Your task to perform on an android device: Open Maps and search for coffee Image 0: 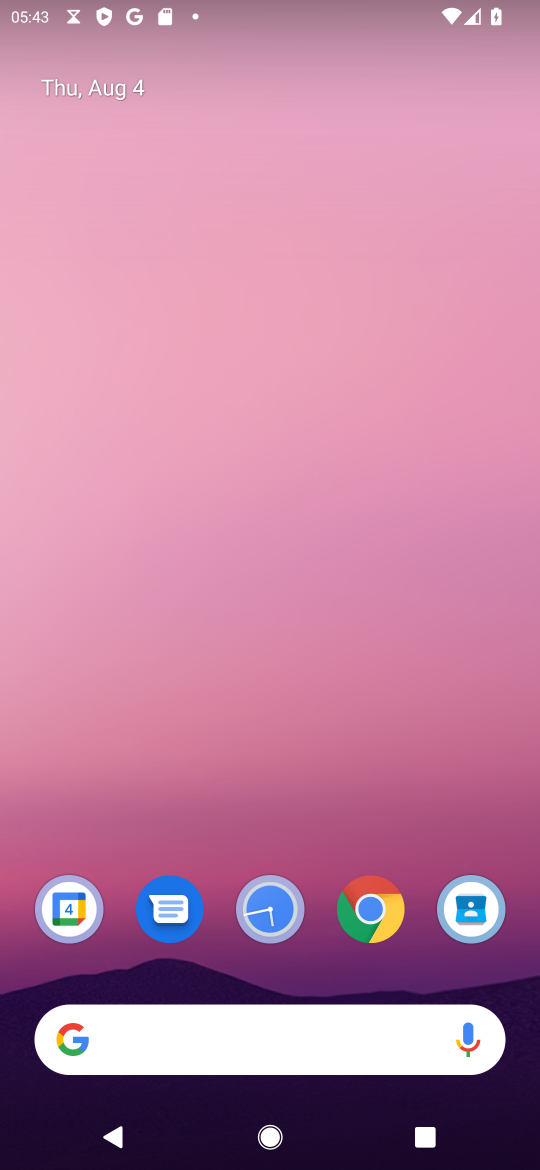
Step 0: drag from (251, 1039) to (318, 210)
Your task to perform on an android device: Open Maps and search for coffee Image 1: 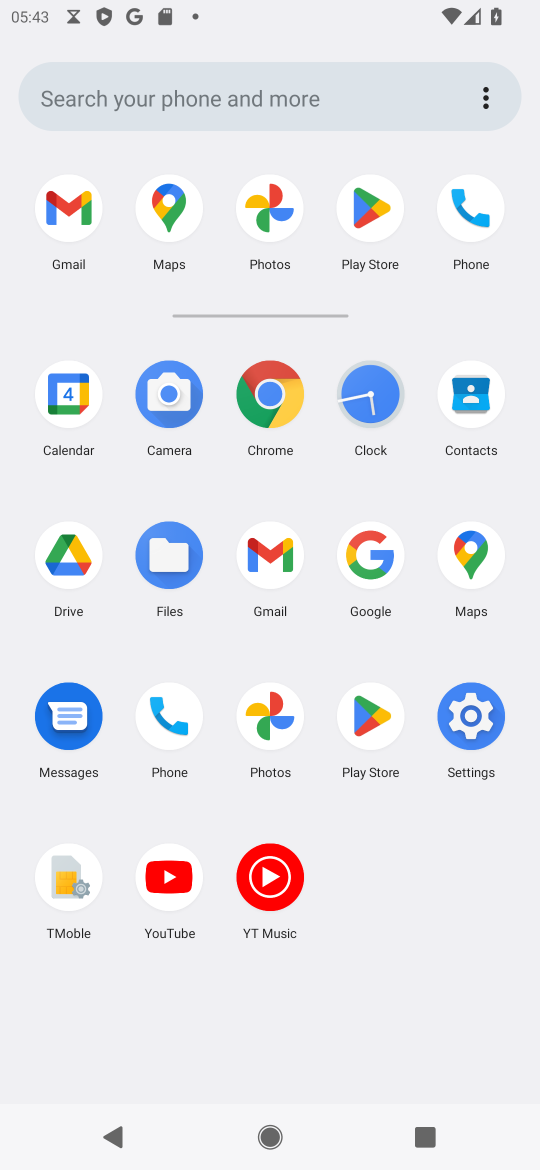
Step 1: click (467, 542)
Your task to perform on an android device: Open Maps and search for coffee Image 2: 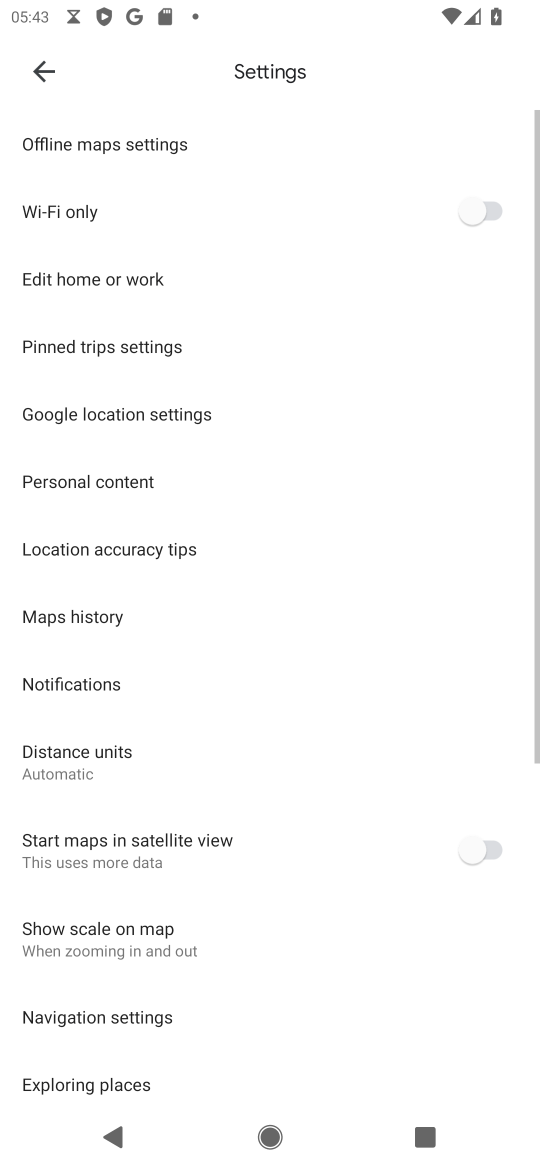
Step 2: click (51, 70)
Your task to perform on an android device: Open Maps and search for coffee Image 3: 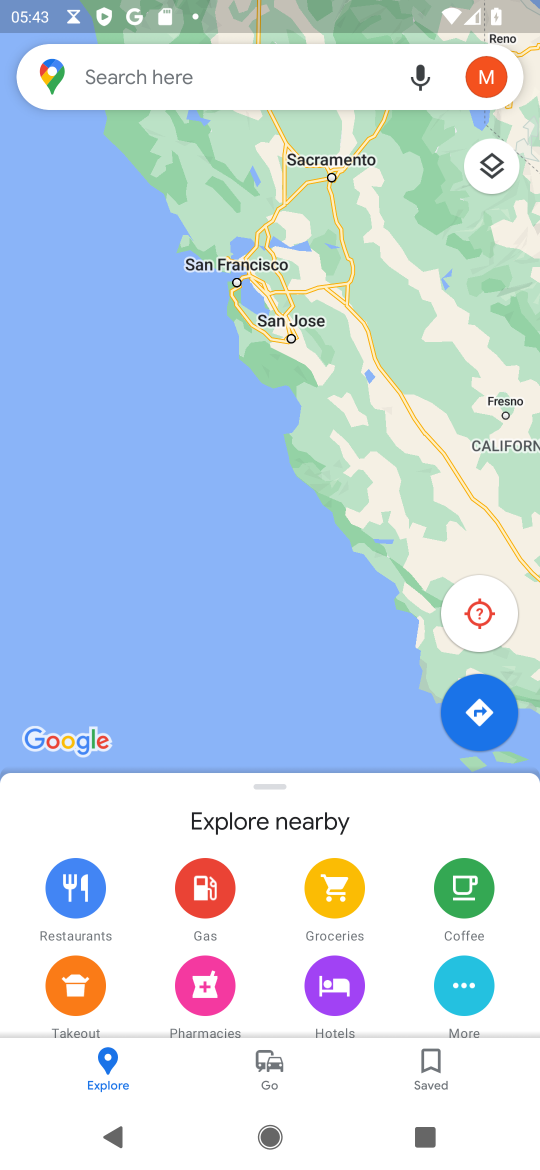
Step 3: click (210, 62)
Your task to perform on an android device: Open Maps and search for coffee Image 4: 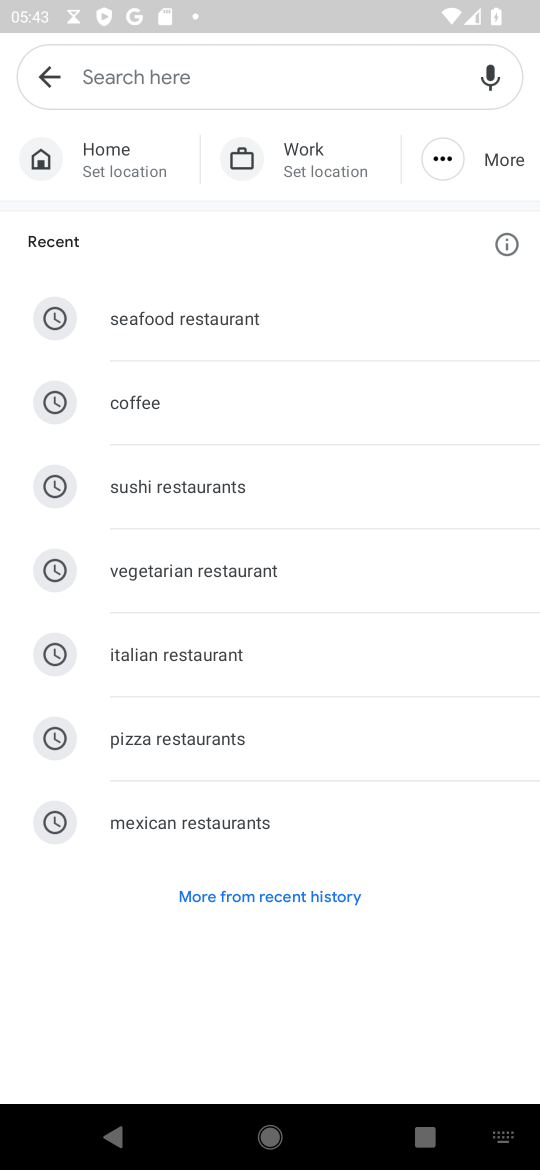
Step 4: click (144, 414)
Your task to perform on an android device: Open Maps and search for coffee Image 5: 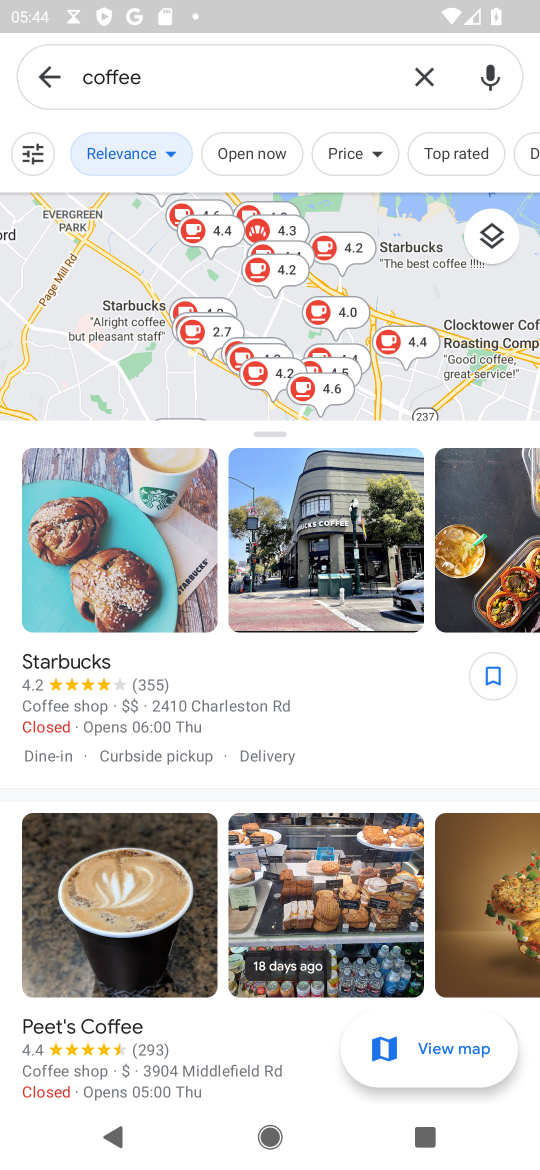
Step 5: task complete